Your task to perform on an android device: check battery use Image 0: 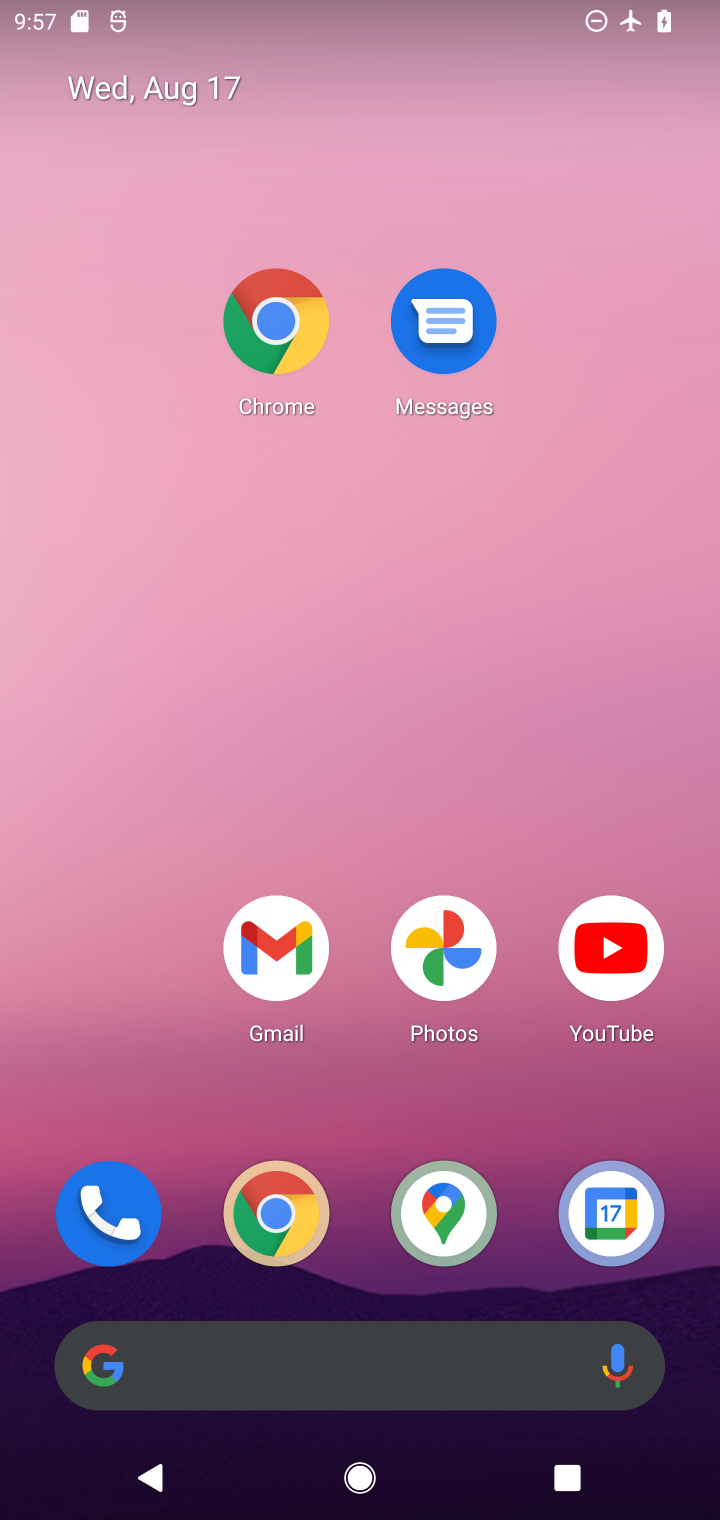
Step 0: drag from (364, 1314) to (375, 451)
Your task to perform on an android device: check battery use Image 1: 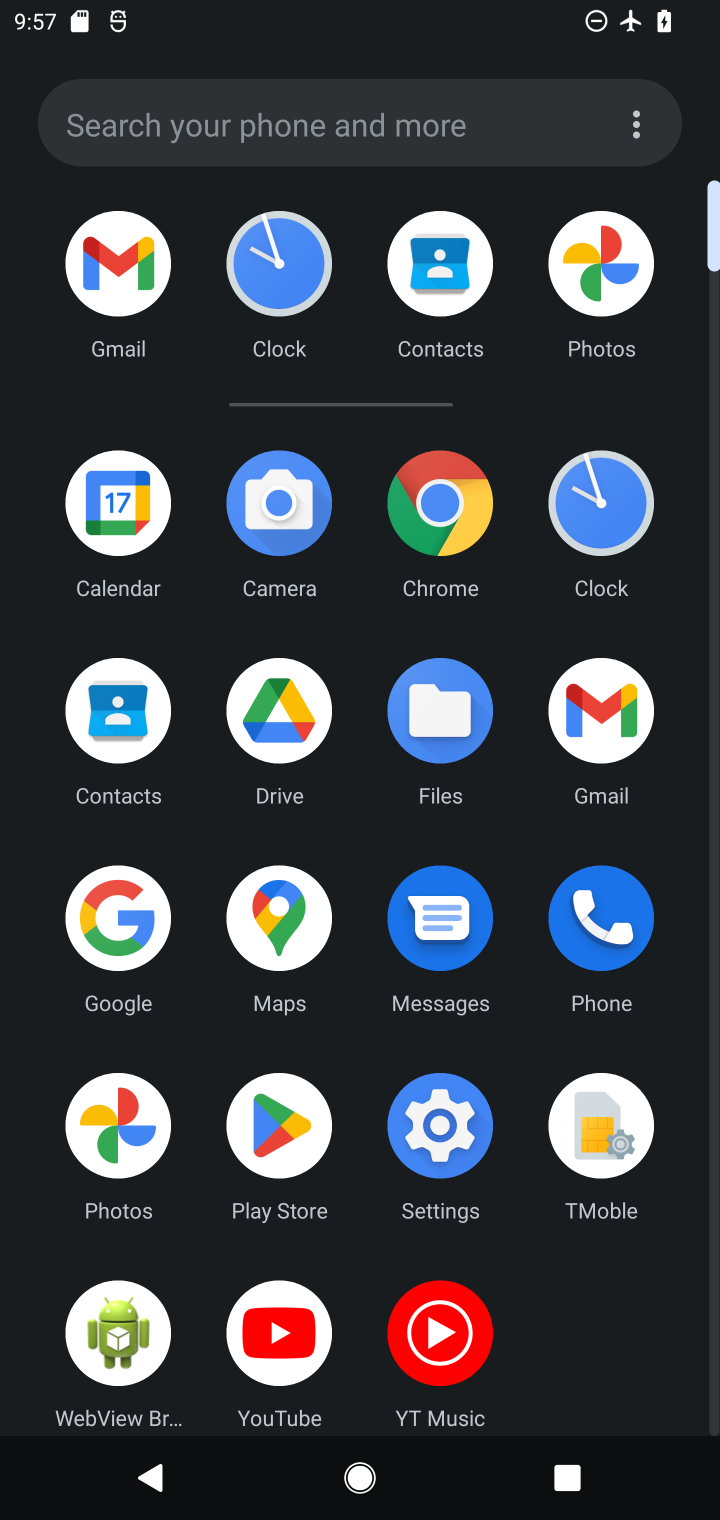
Step 1: click (461, 1217)
Your task to perform on an android device: check battery use Image 2: 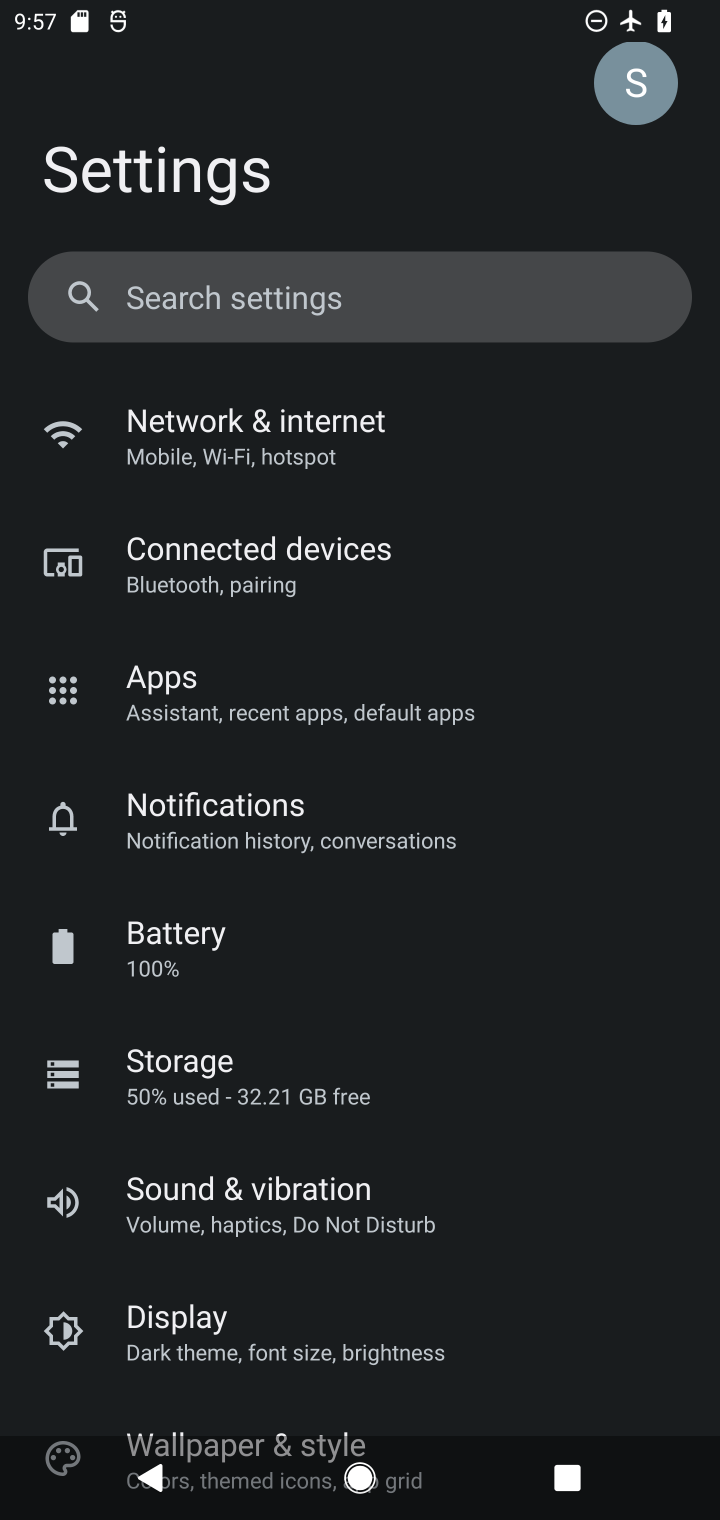
Step 2: click (241, 965)
Your task to perform on an android device: check battery use Image 3: 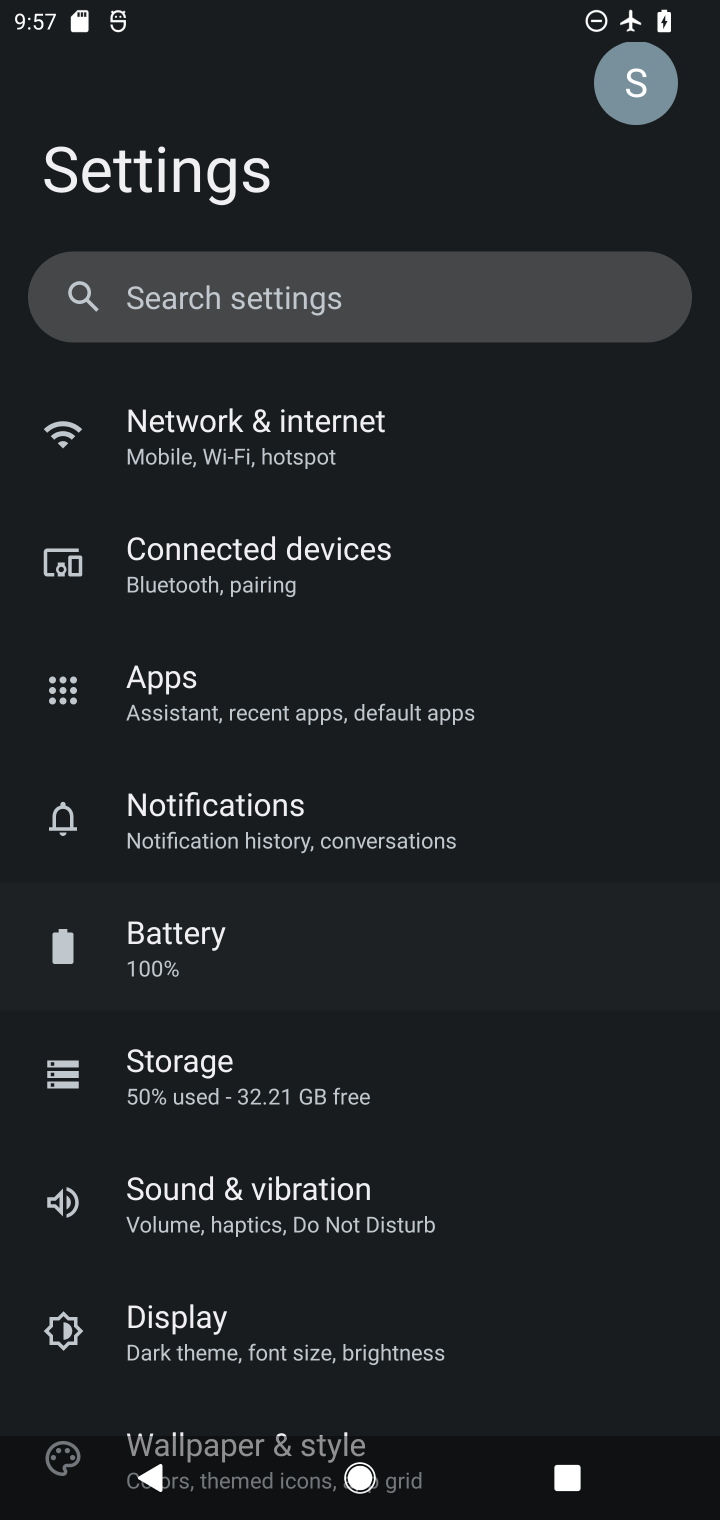
Step 3: task complete